Your task to perform on an android device: Go to wifi settings Image 0: 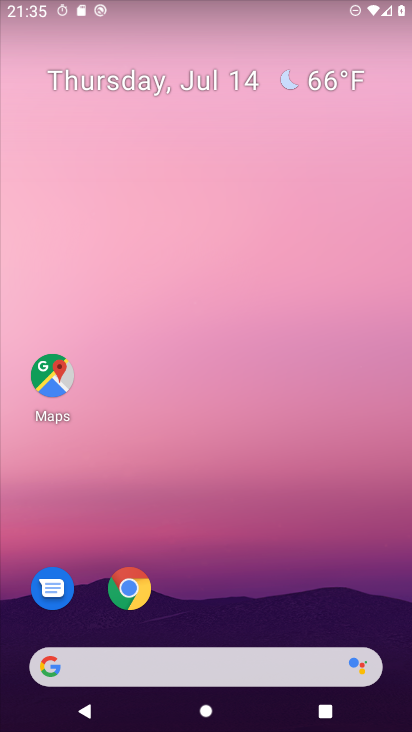
Step 0: drag from (291, 563) to (328, 61)
Your task to perform on an android device: Go to wifi settings Image 1: 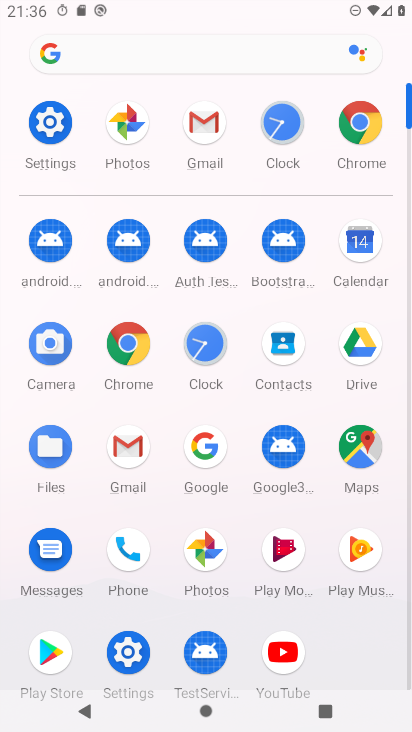
Step 1: click (52, 128)
Your task to perform on an android device: Go to wifi settings Image 2: 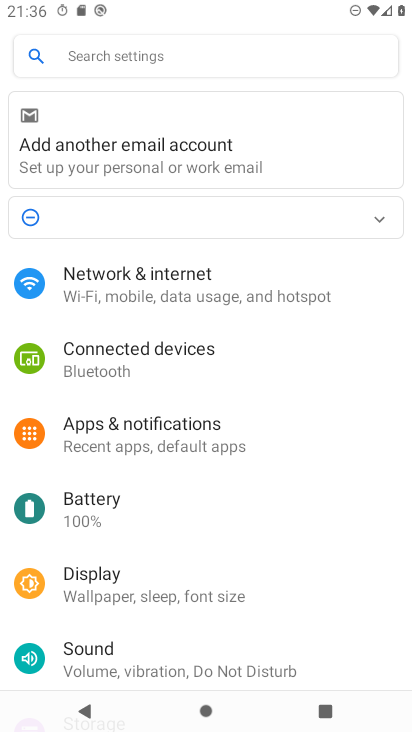
Step 2: drag from (323, 508) to (327, 395)
Your task to perform on an android device: Go to wifi settings Image 3: 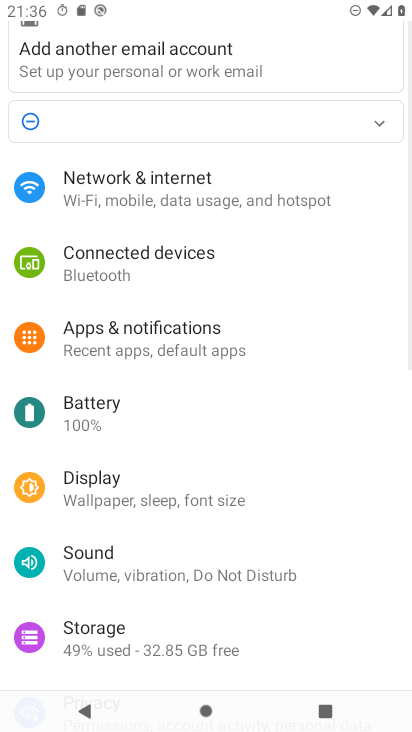
Step 3: drag from (354, 500) to (355, 407)
Your task to perform on an android device: Go to wifi settings Image 4: 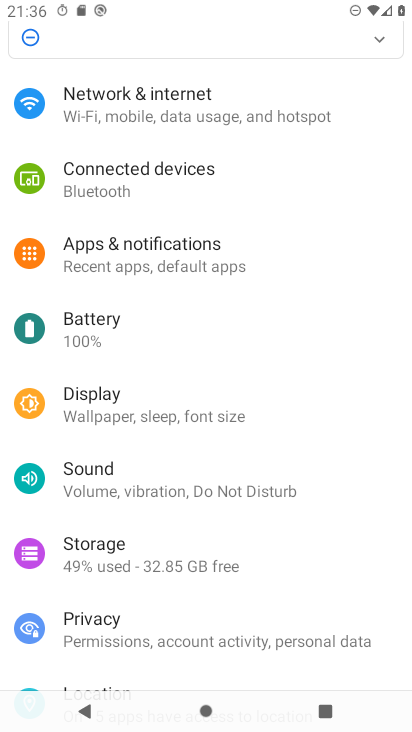
Step 4: drag from (350, 517) to (350, 424)
Your task to perform on an android device: Go to wifi settings Image 5: 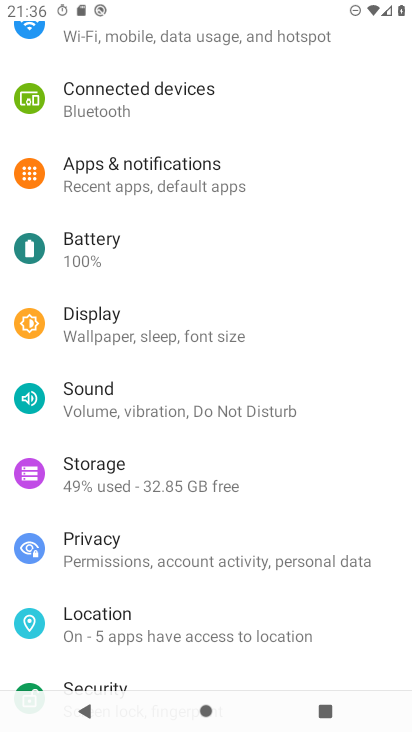
Step 5: drag from (348, 522) to (349, 430)
Your task to perform on an android device: Go to wifi settings Image 6: 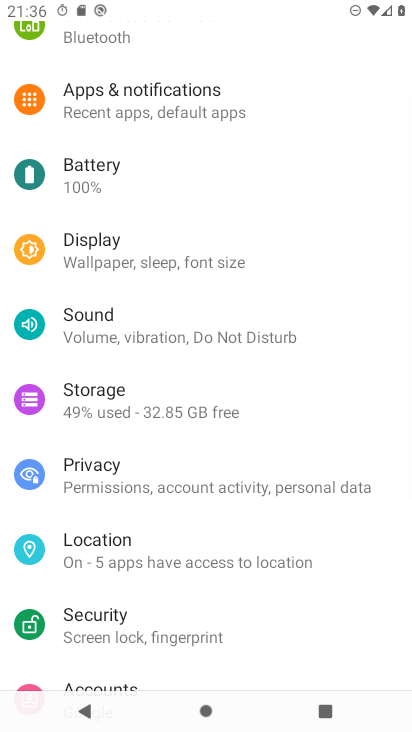
Step 6: drag from (346, 553) to (351, 454)
Your task to perform on an android device: Go to wifi settings Image 7: 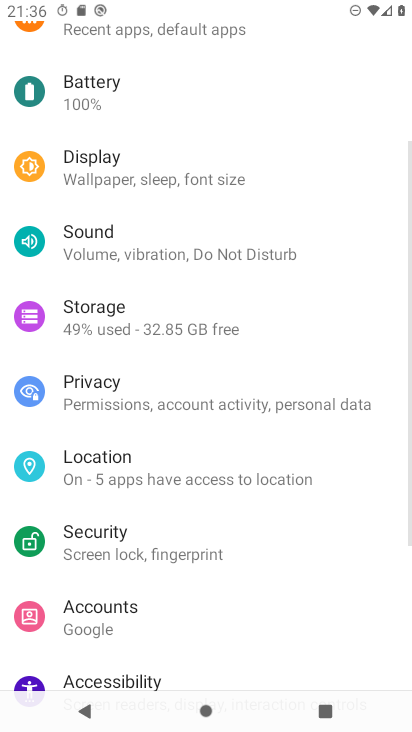
Step 7: drag from (351, 559) to (351, 460)
Your task to perform on an android device: Go to wifi settings Image 8: 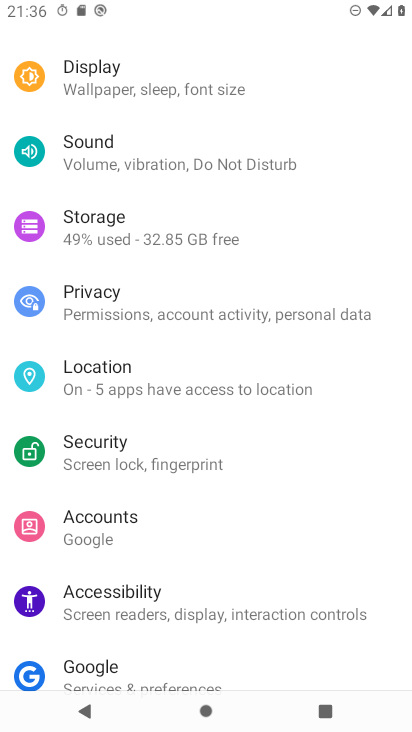
Step 8: drag from (345, 565) to (345, 446)
Your task to perform on an android device: Go to wifi settings Image 9: 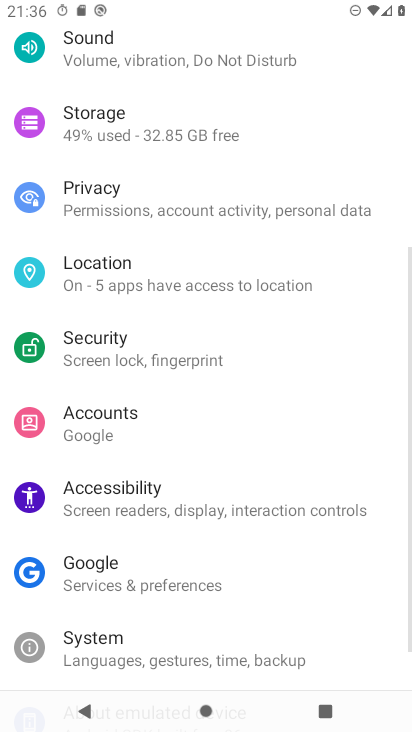
Step 9: drag from (345, 597) to (352, 447)
Your task to perform on an android device: Go to wifi settings Image 10: 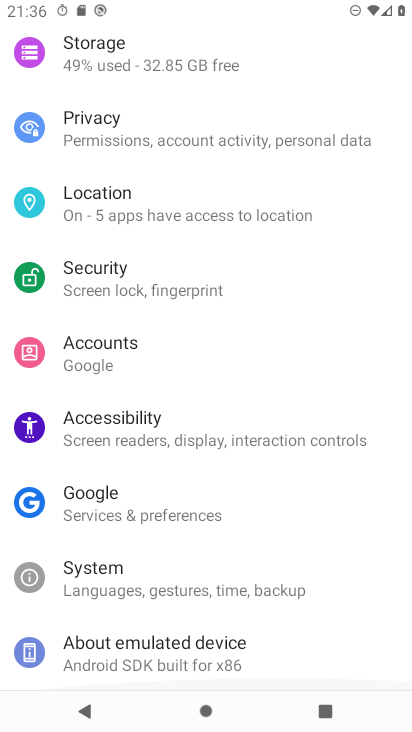
Step 10: drag from (367, 362) to (368, 432)
Your task to perform on an android device: Go to wifi settings Image 11: 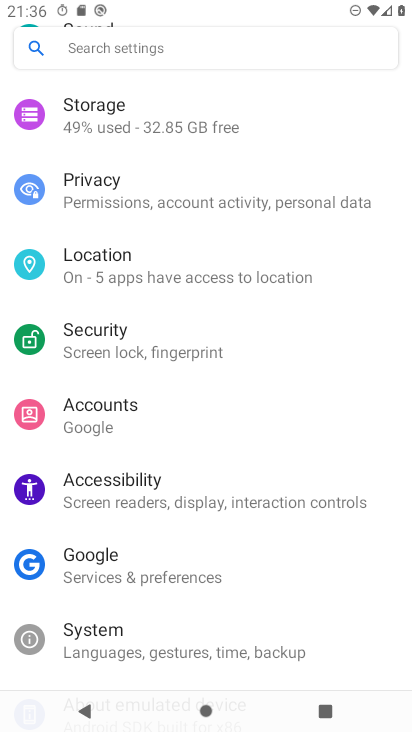
Step 11: drag from (372, 339) to (373, 409)
Your task to perform on an android device: Go to wifi settings Image 12: 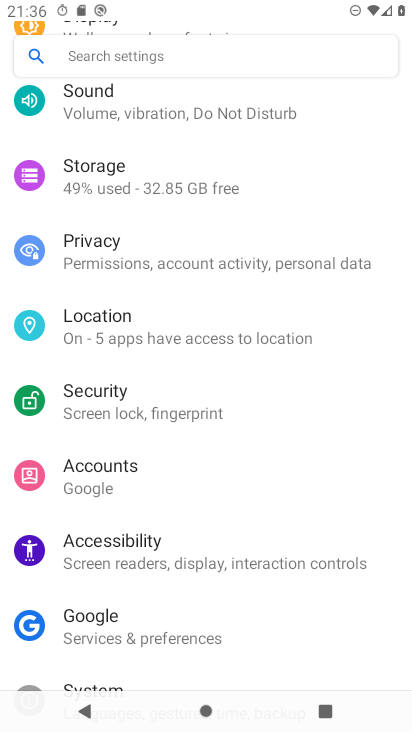
Step 12: drag from (377, 333) to (379, 432)
Your task to perform on an android device: Go to wifi settings Image 13: 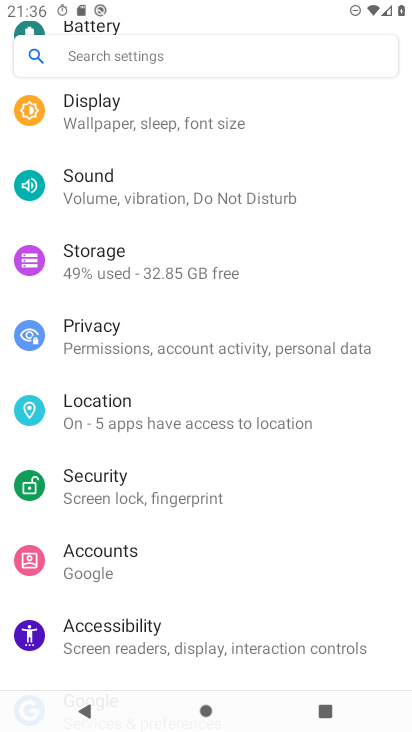
Step 13: drag from (379, 308) to (372, 424)
Your task to perform on an android device: Go to wifi settings Image 14: 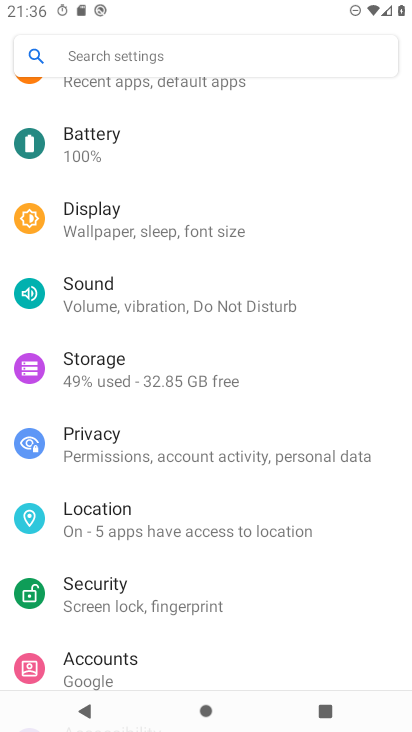
Step 14: drag from (363, 325) to (367, 423)
Your task to perform on an android device: Go to wifi settings Image 15: 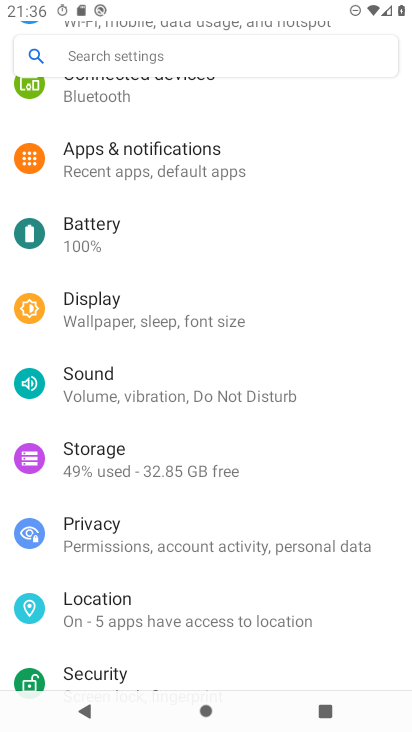
Step 15: drag from (358, 333) to (356, 451)
Your task to perform on an android device: Go to wifi settings Image 16: 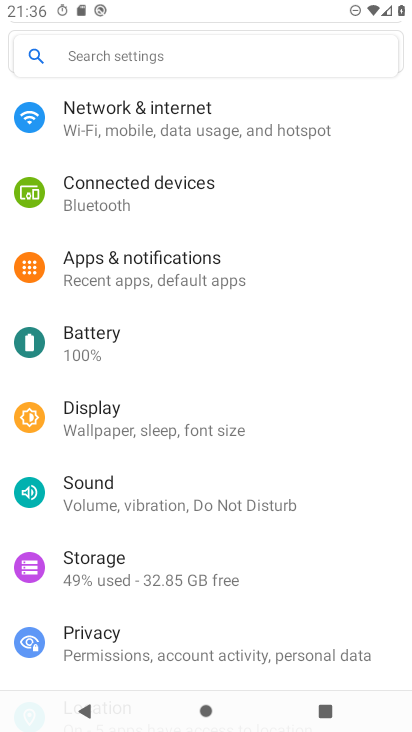
Step 16: drag from (349, 305) to (349, 550)
Your task to perform on an android device: Go to wifi settings Image 17: 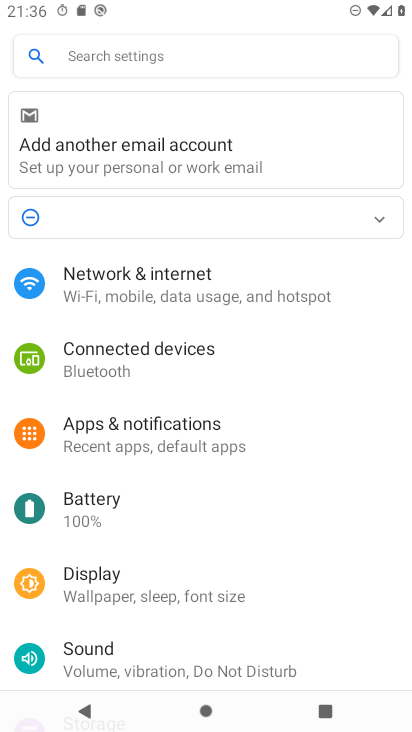
Step 17: click (307, 304)
Your task to perform on an android device: Go to wifi settings Image 18: 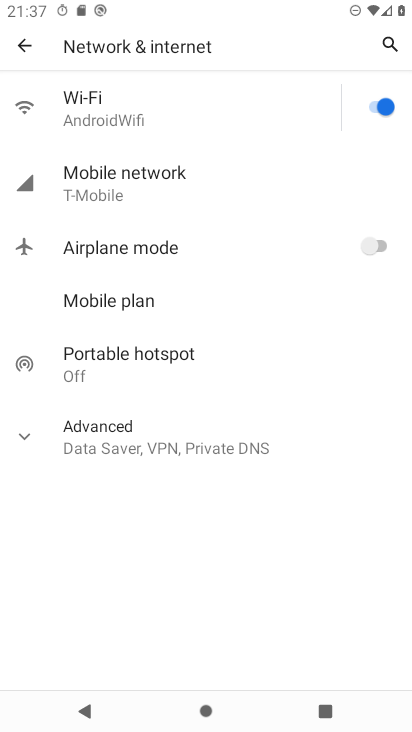
Step 18: click (130, 95)
Your task to perform on an android device: Go to wifi settings Image 19: 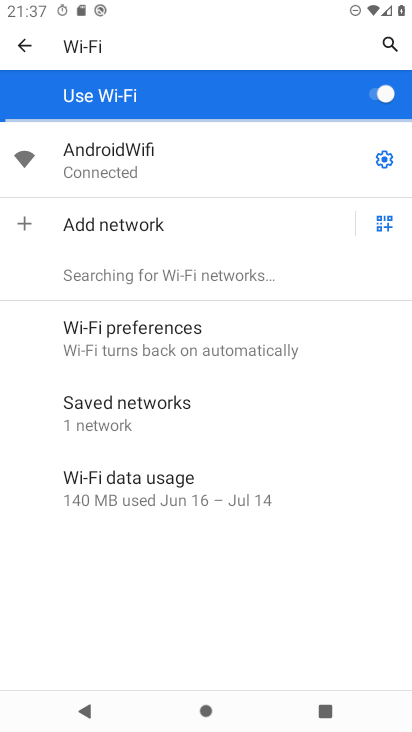
Step 19: task complete